Your task to perform on an android device: Show the shopping cart on newegg.com. Add macbook pro to the cart on newegg.com, then select checkout. Image 0: 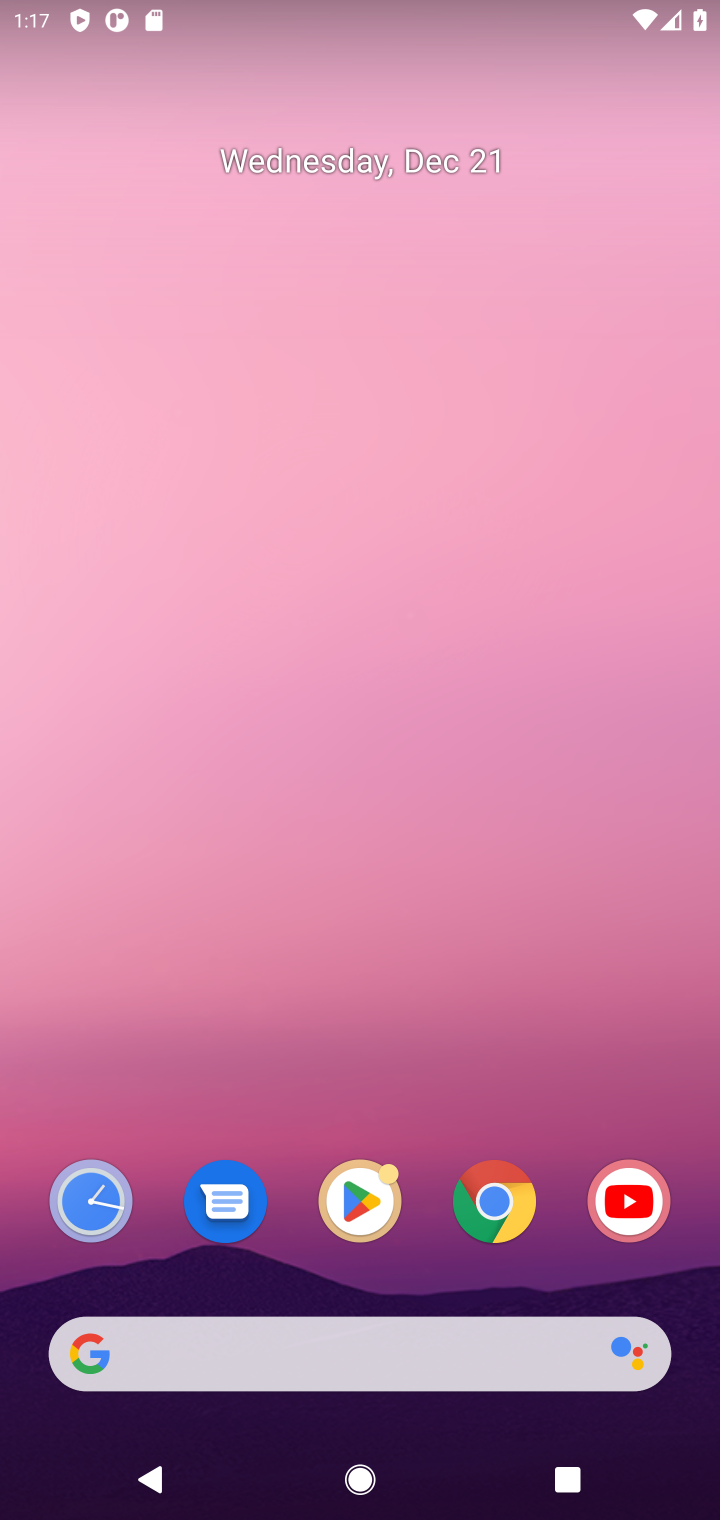
Step 0: click (479, 1216)
Your task to perform on an android device: Show the shopping cart on newegg.com. Add macbook pro to the cart on newegg.com, then select checkout. Image 1: 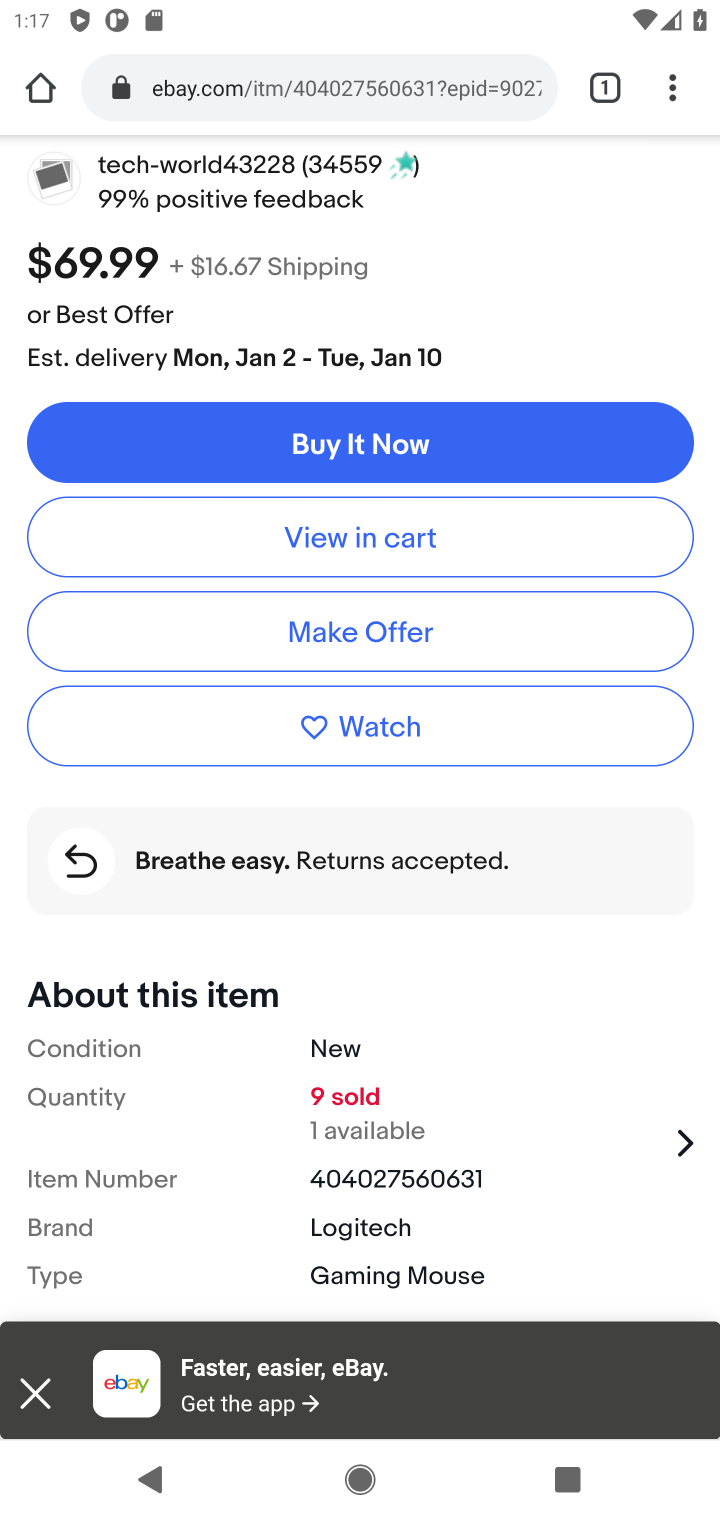
Step 1: click (223, 96)
Your task to perform on an android device: Show the shopping cart on newegg.com. Add macbook pro to the cart on newegg.com, then select checkout. Image 2: 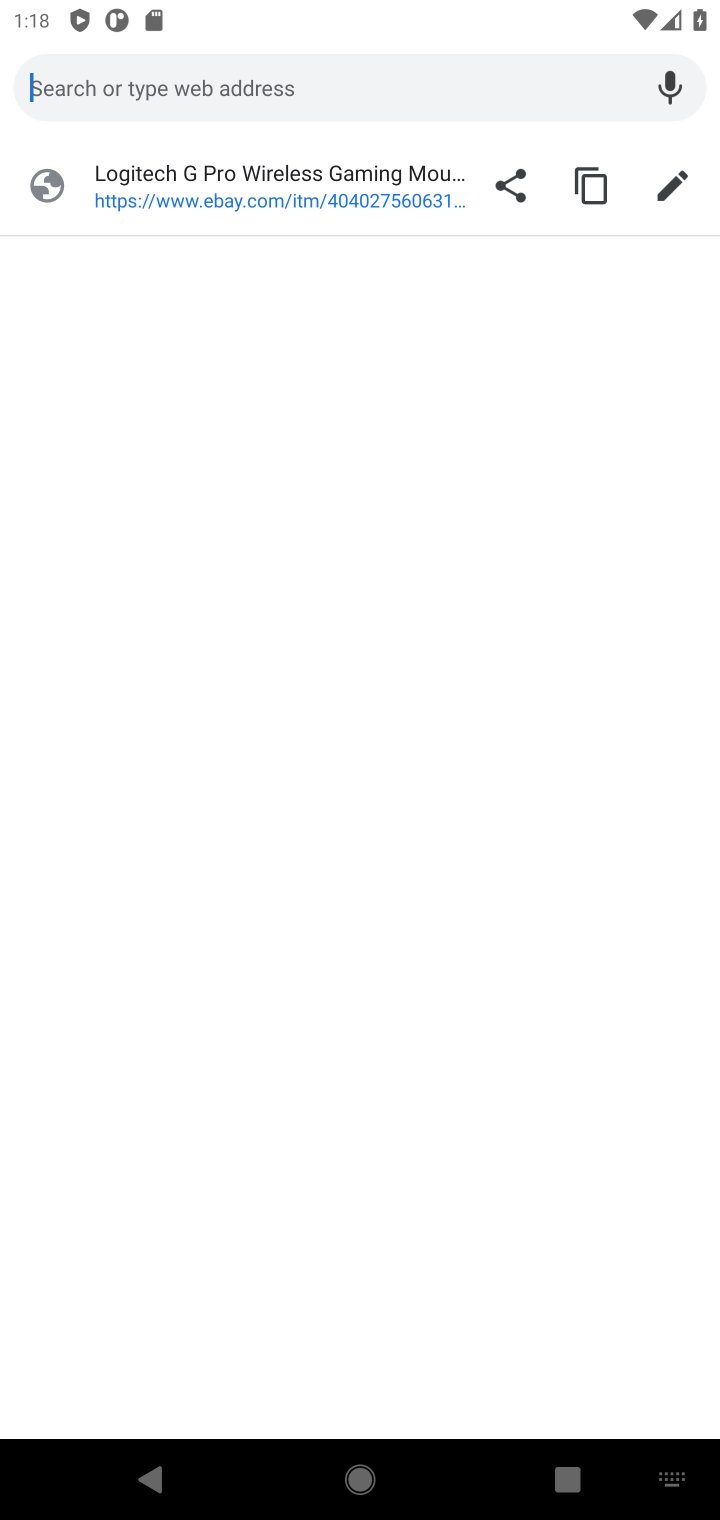
Step 2: type "newegg.com"
Your task to perform on an android device: Show the shopping cart on newegg.com. Add macbook pro to the cart on newegg.com, then select checkout. Image 3: 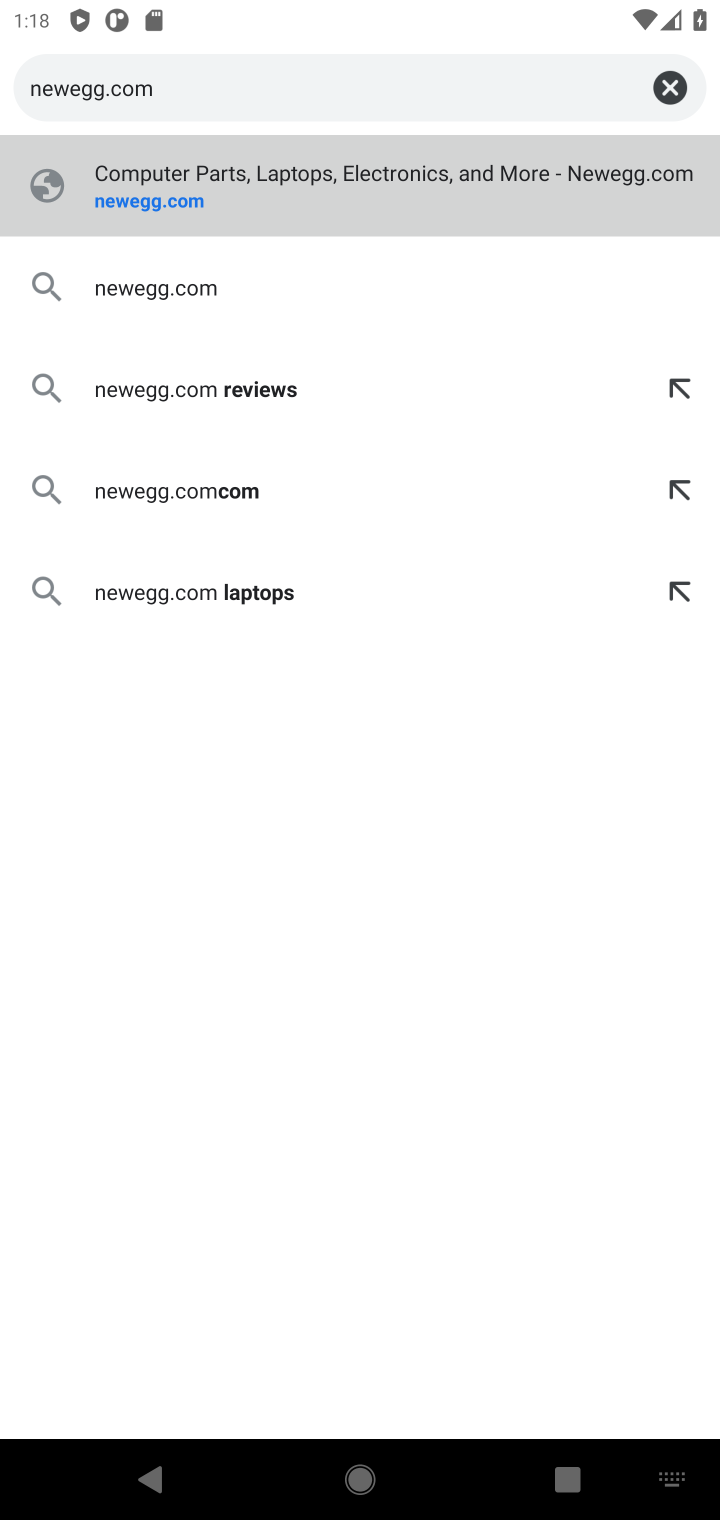
Step 3: click (150, 198)
Your task to perform on an android device: Show the shopping cart on newegg.com. Add macbook pro to the cart on newegg.com, then select checkout. Image 4: 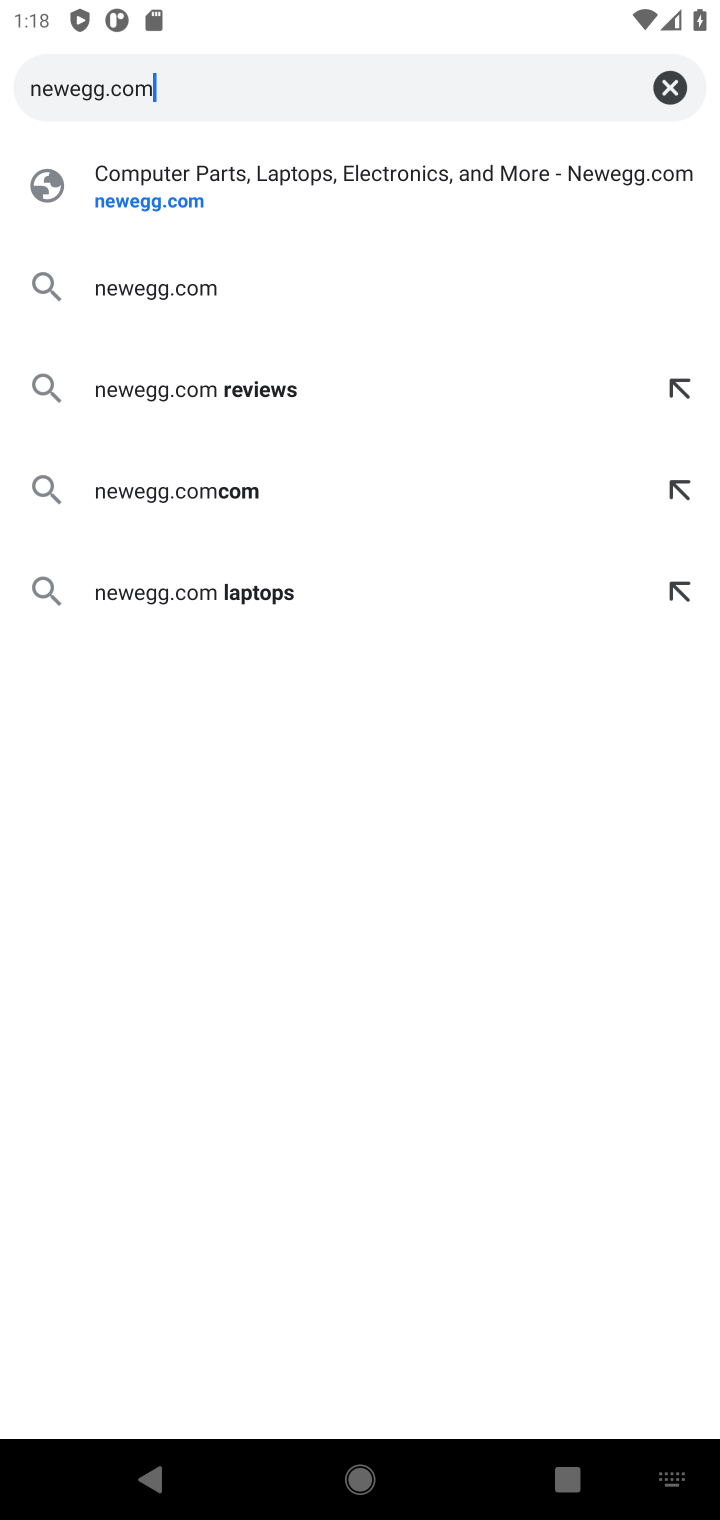
Step 4: click (159, 216)
Your task to perform on an android device: Show the shopping cart on newegg.com. Add macbook pro to the cart on newegg.com, then select checkout. Image 5: 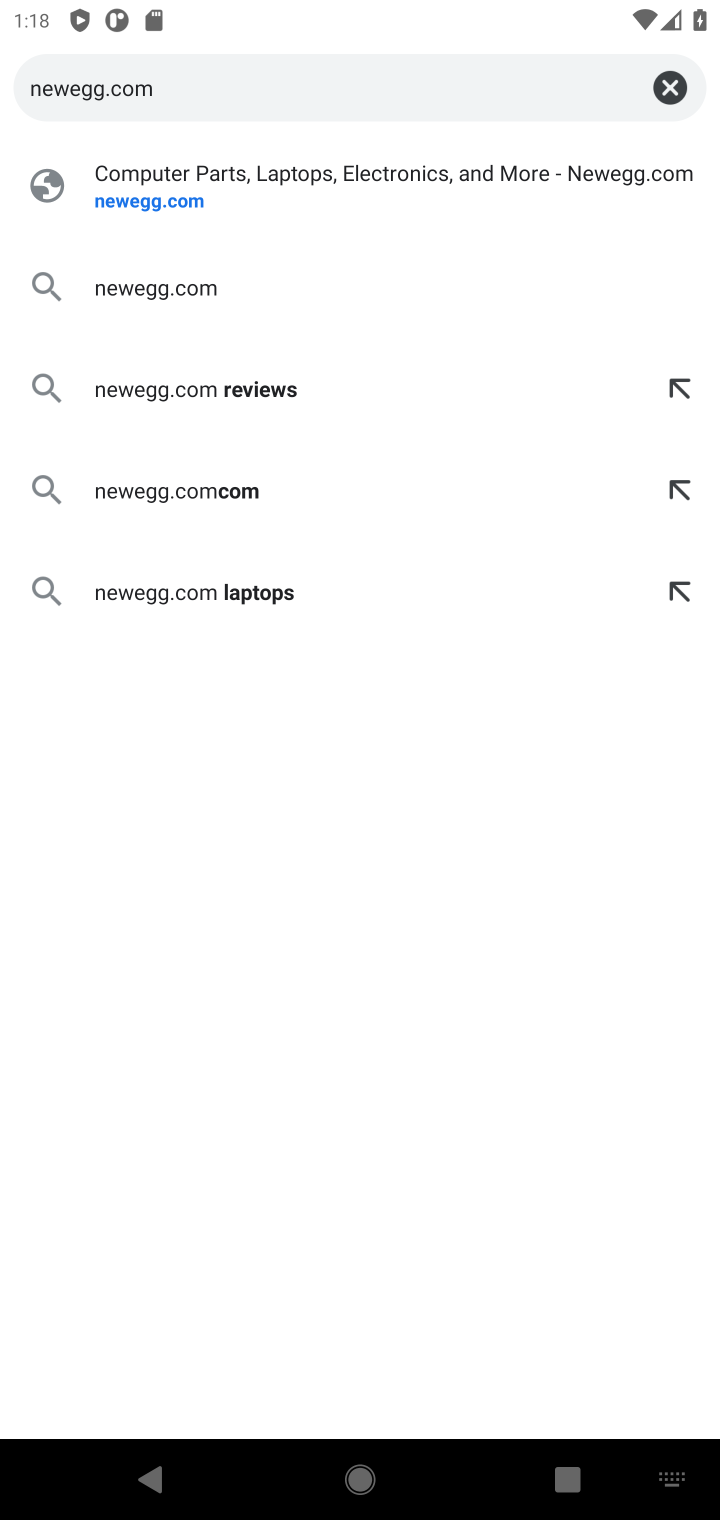
Step 5: click (159, 216)
Your task to perform on an android device: Show the shopping cart on newegg.com. Add macbook pro to the cart on newegg.com, then select checkout. Image 6: 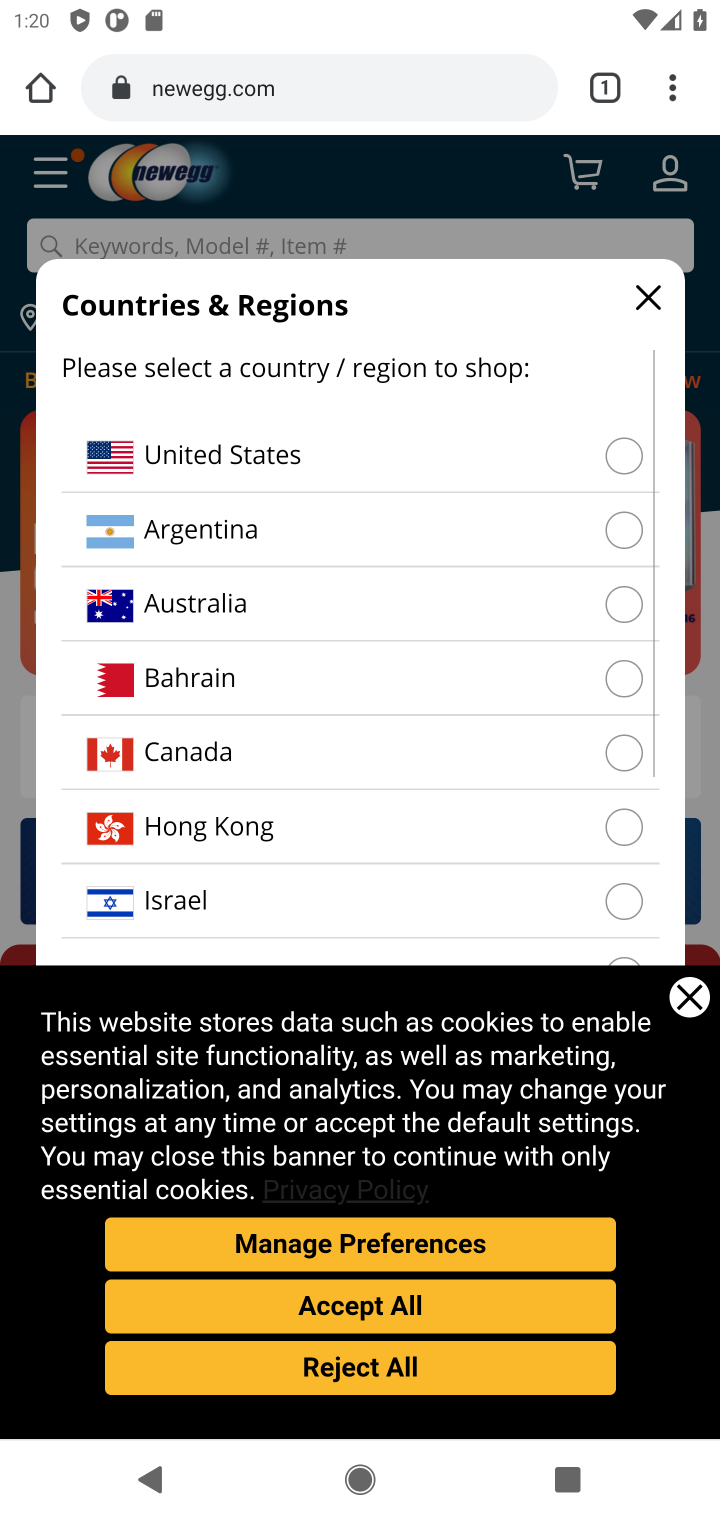
Step 6: click (694, 993)
Your task to perform on an android device: Show the shopping cart on newegg.com. Add macbook pro to the cart on newegg.com, then select checkout. Image 7: 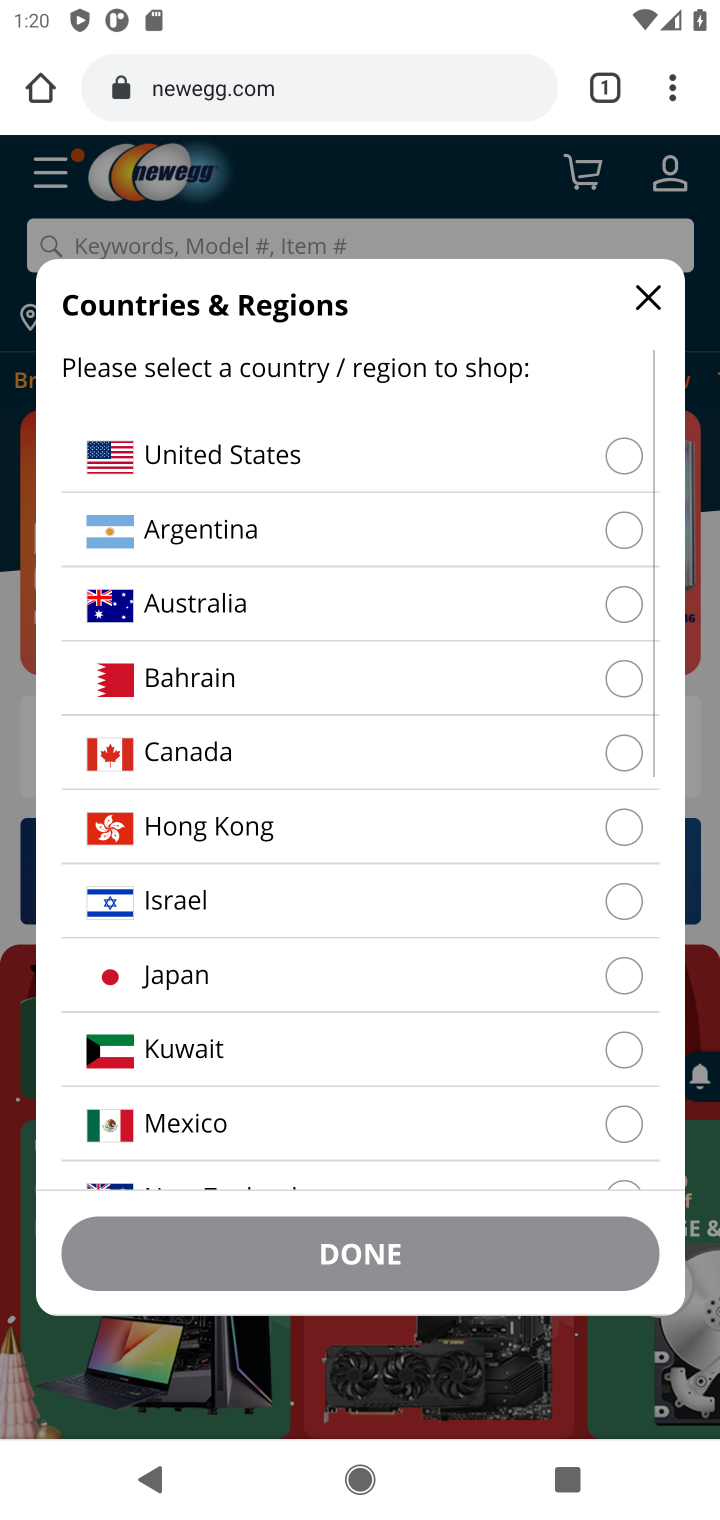
Step 7: click (218, 453)
Your task to perform on an android device: Show the shopping cart on newegg.com. Add macbook pro to the cart on newegg.com, then select checkout. Image 8: 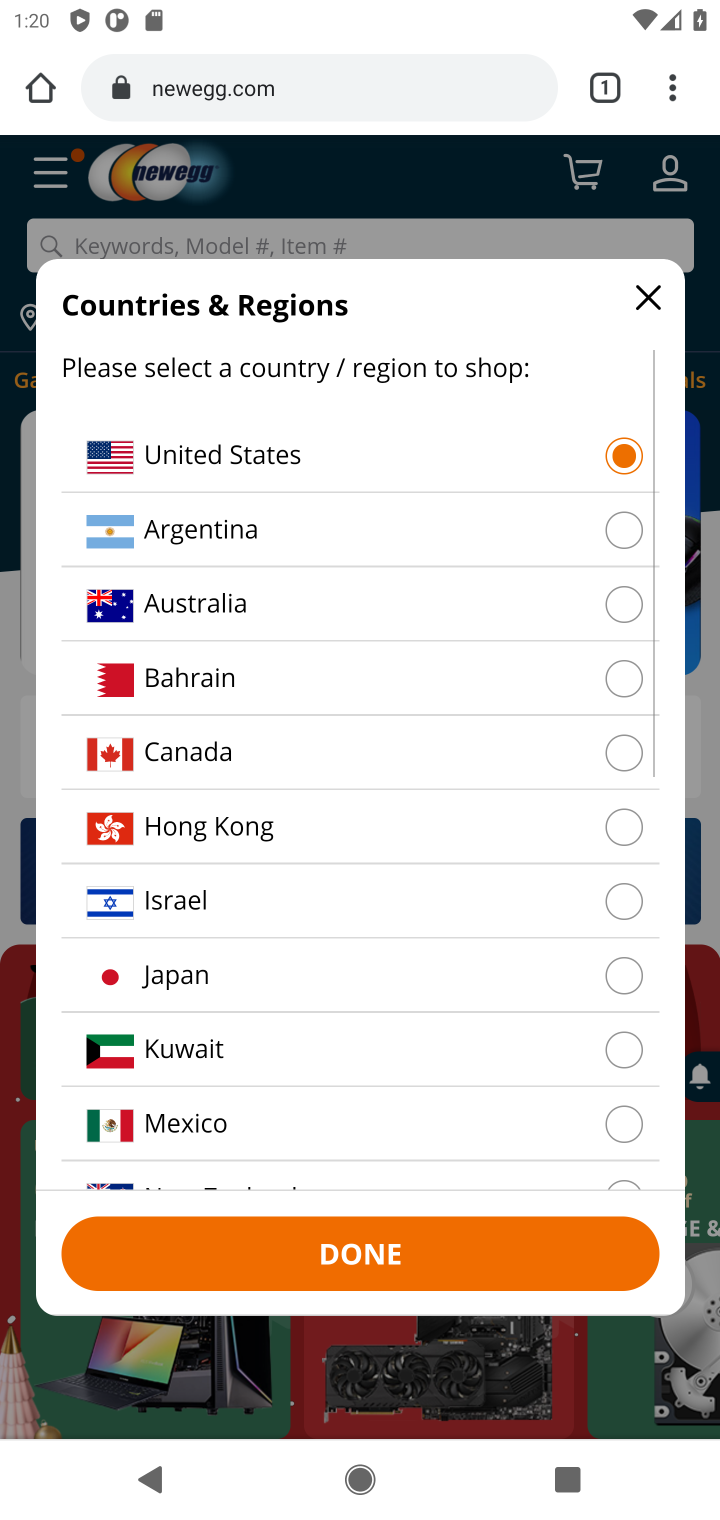
Step 8: click (347, 1249)
Your task to perform on an android device: Show the shopping cart on newegg.com. Add macbook pro to the cart on newegg.com, then select checkout. Image 9: 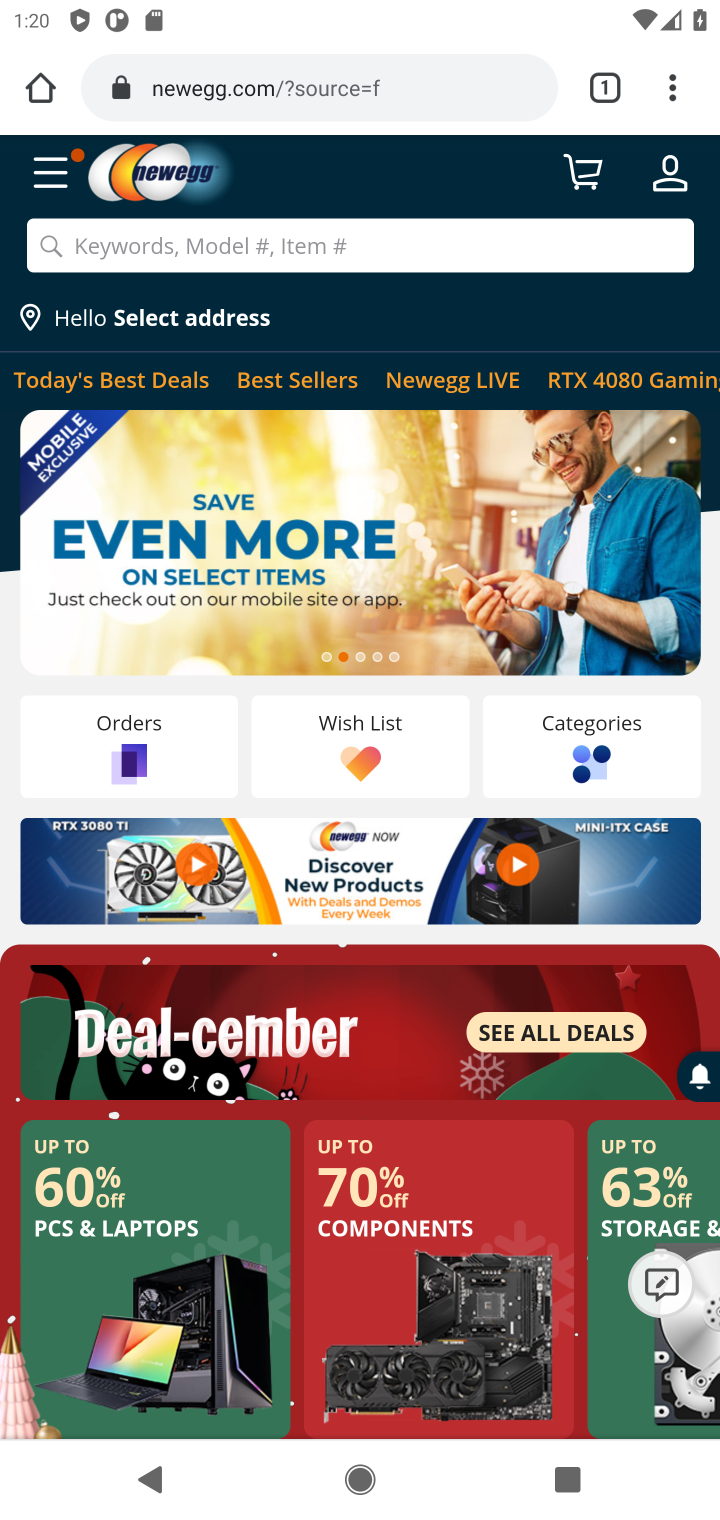
Step 9: click (590, 181)
Your task to perform on an android device: Show the shopping cart on newegg.com. Add macbook pro to the cart on newegg.com, then select checkout. Image 10: 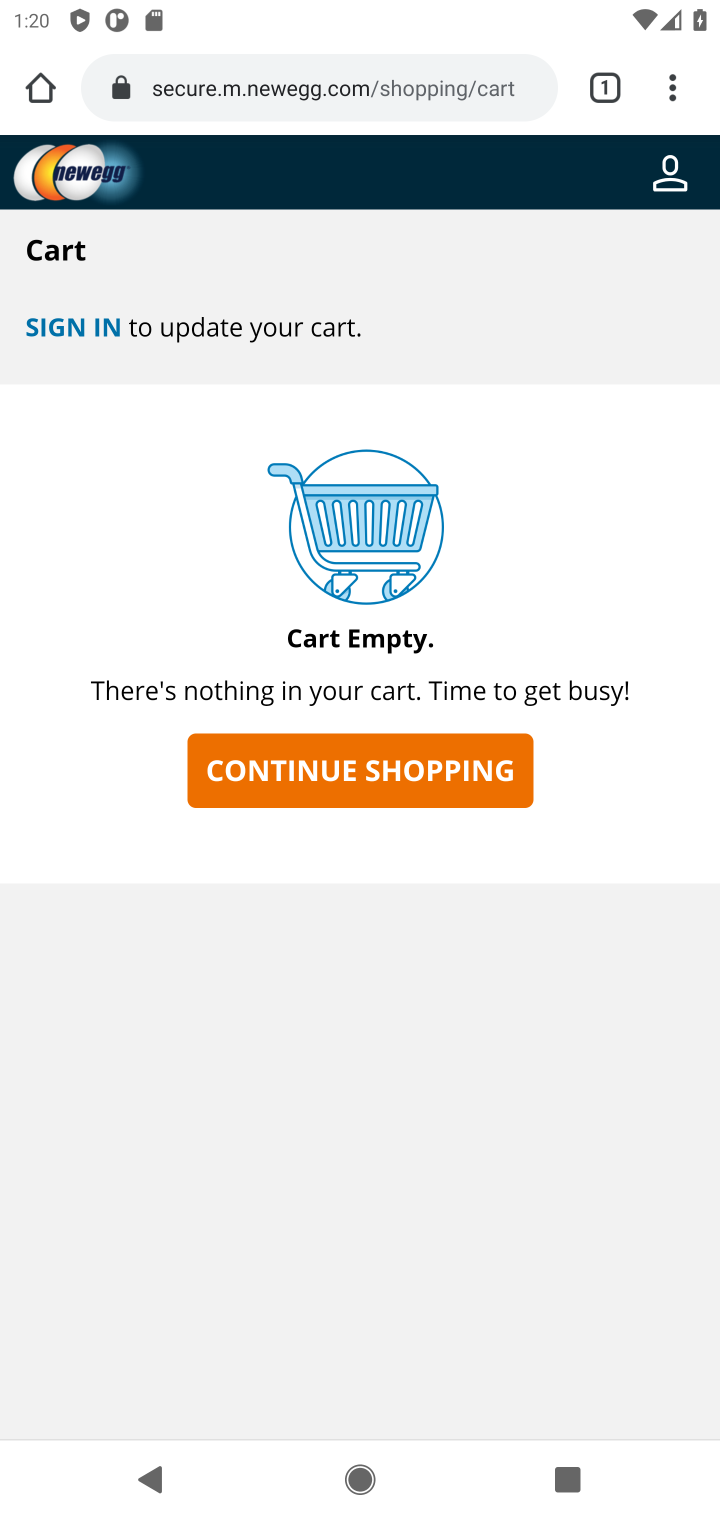
Step 10: click (378, 769)
Your task to perform on an android device: Show the shopping cart on newegg.com. Add macbook pro to the cart on newegg.com, then select checkout. Image 11: 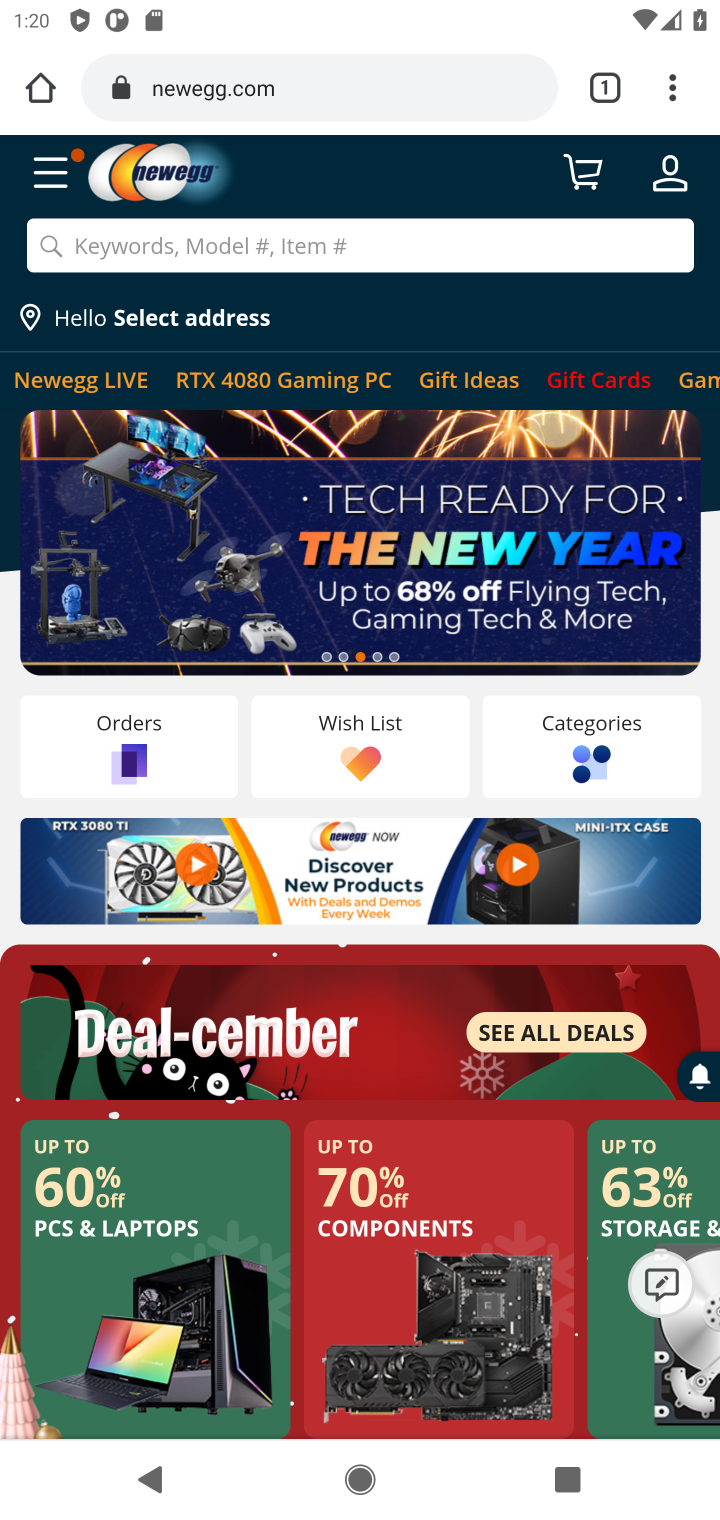
Step 11: click (122, 261)
Your task to perform on an android device: Show the shopping cart on newegg.com. Add macbook pro to the cart on newegg.com, then select checkout. Image 12: 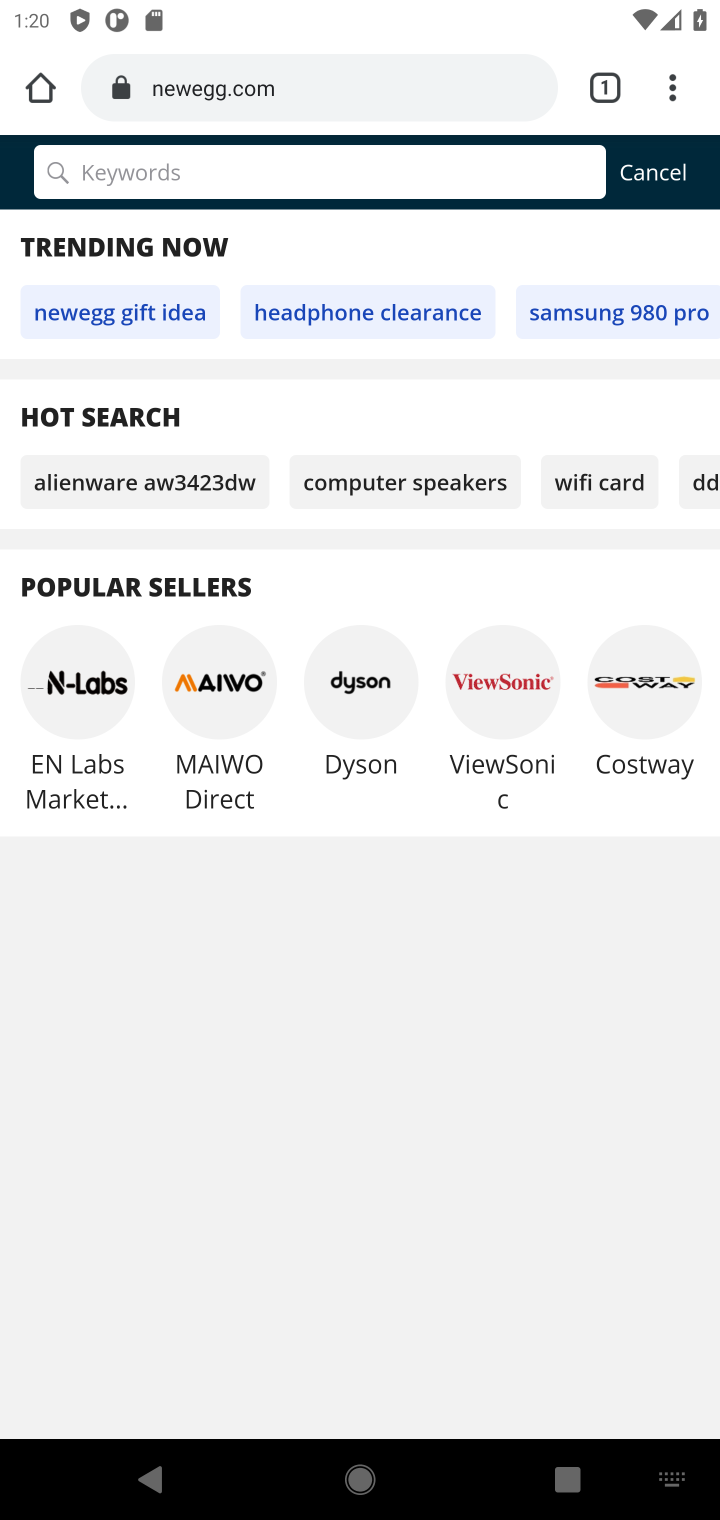
Step 12: type "macbook pro"
Your task to perform on an android device: Show the shopping cart on newegg.com. Add macbook pro to the cart on newegg.com, then select checkout. Image 13: 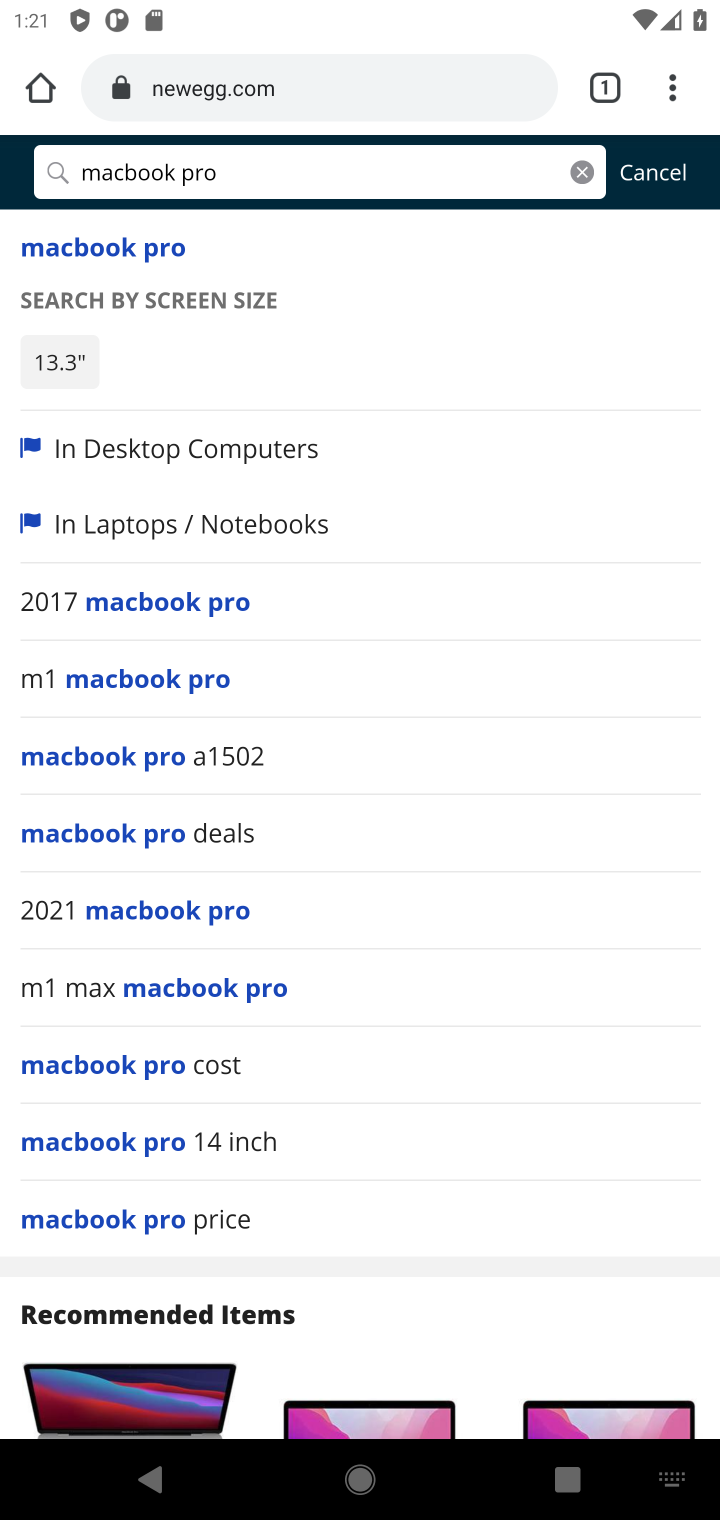
Step 13: click (66, 247)
Your task to perform on an android device: Show the shopping cart on newegg.com. Add macbook pro to the cart on newegg.com, then select checkout. Image 14: 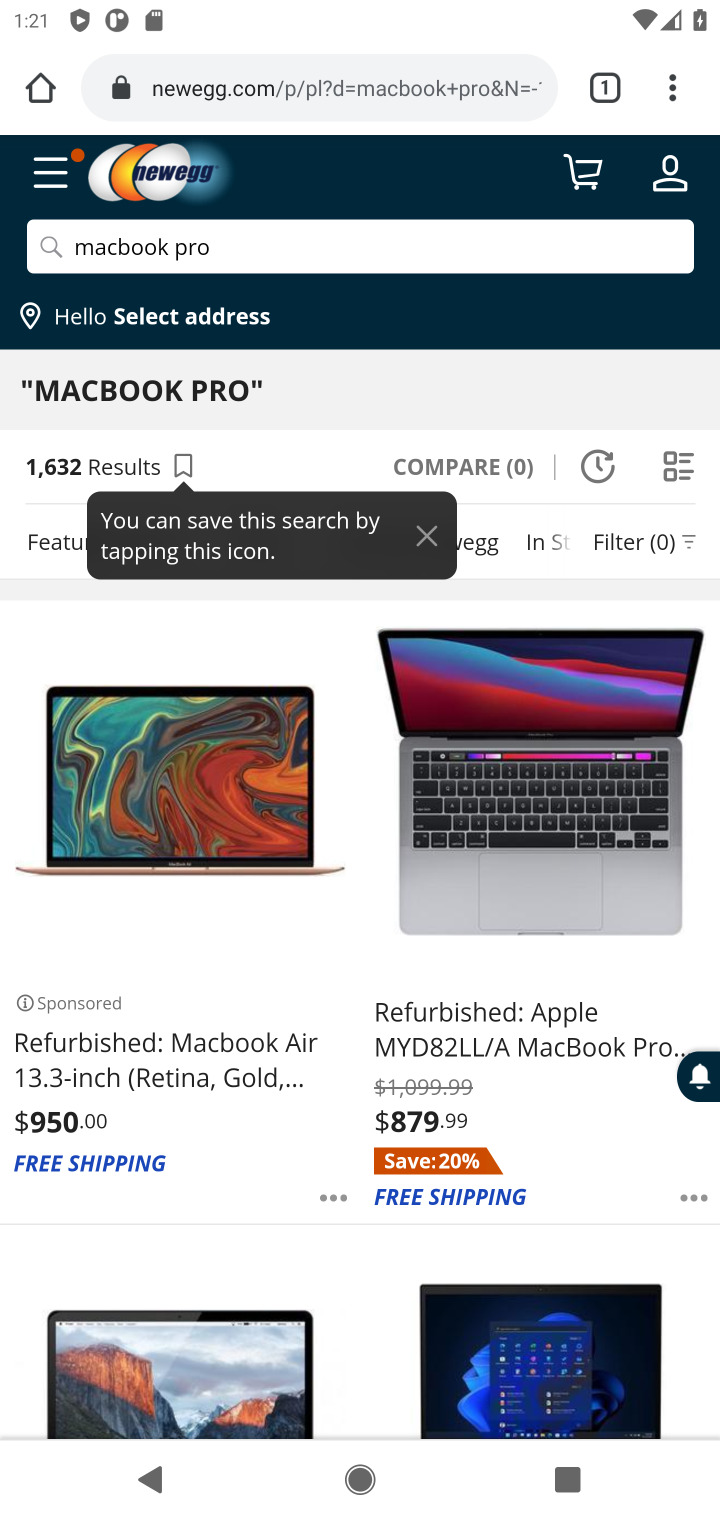
Step 14: drag from (150, 1025) to (150, 777)
Your task to perform on an android device: Show the shopping cart on newegg.com. Add macbook pro to the cart on newegg.com, then select checkout. Image 15: 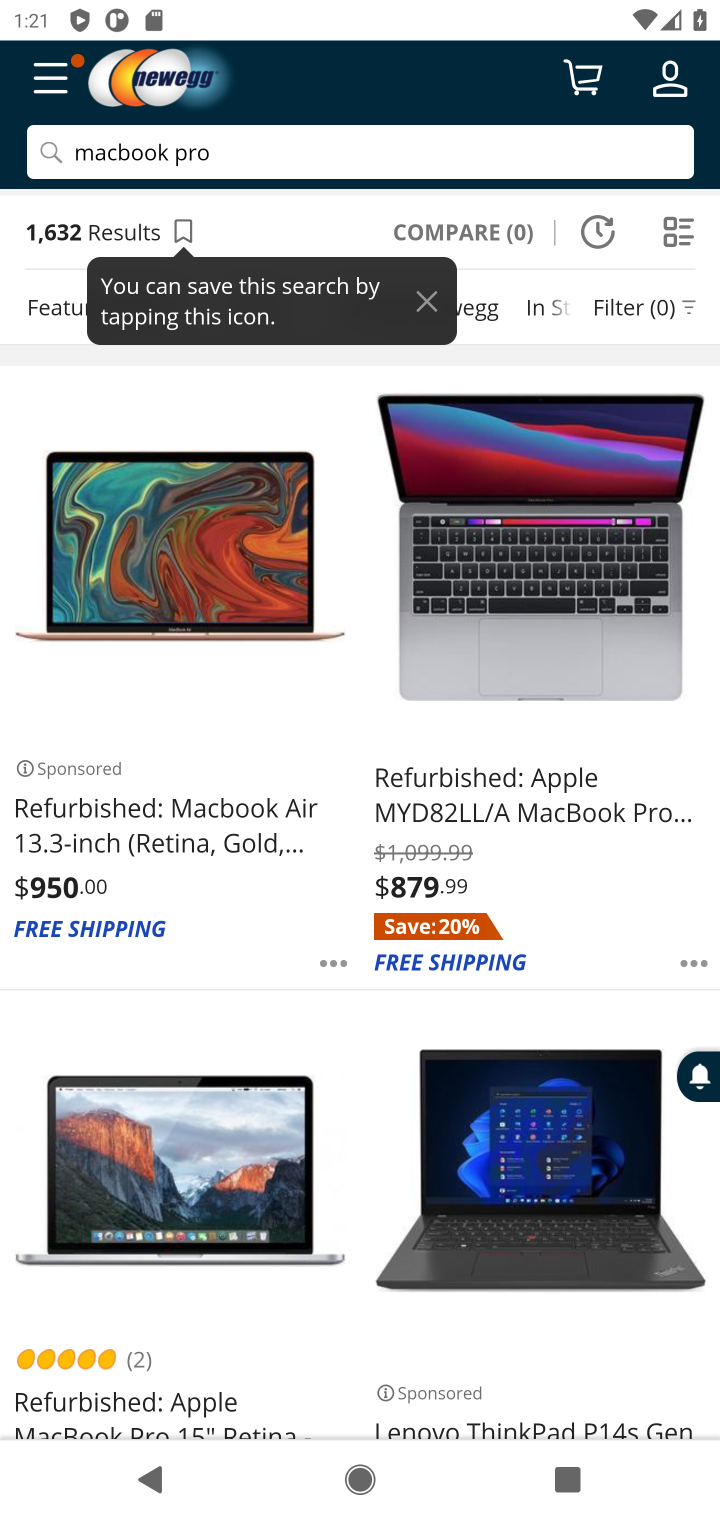
Step 15: click (534, 811)
Your task to perform on an android device: Show the shopping cart on newegg.com. Add macbook pro to the cart on newegg.com, then select checkout. Image 16: 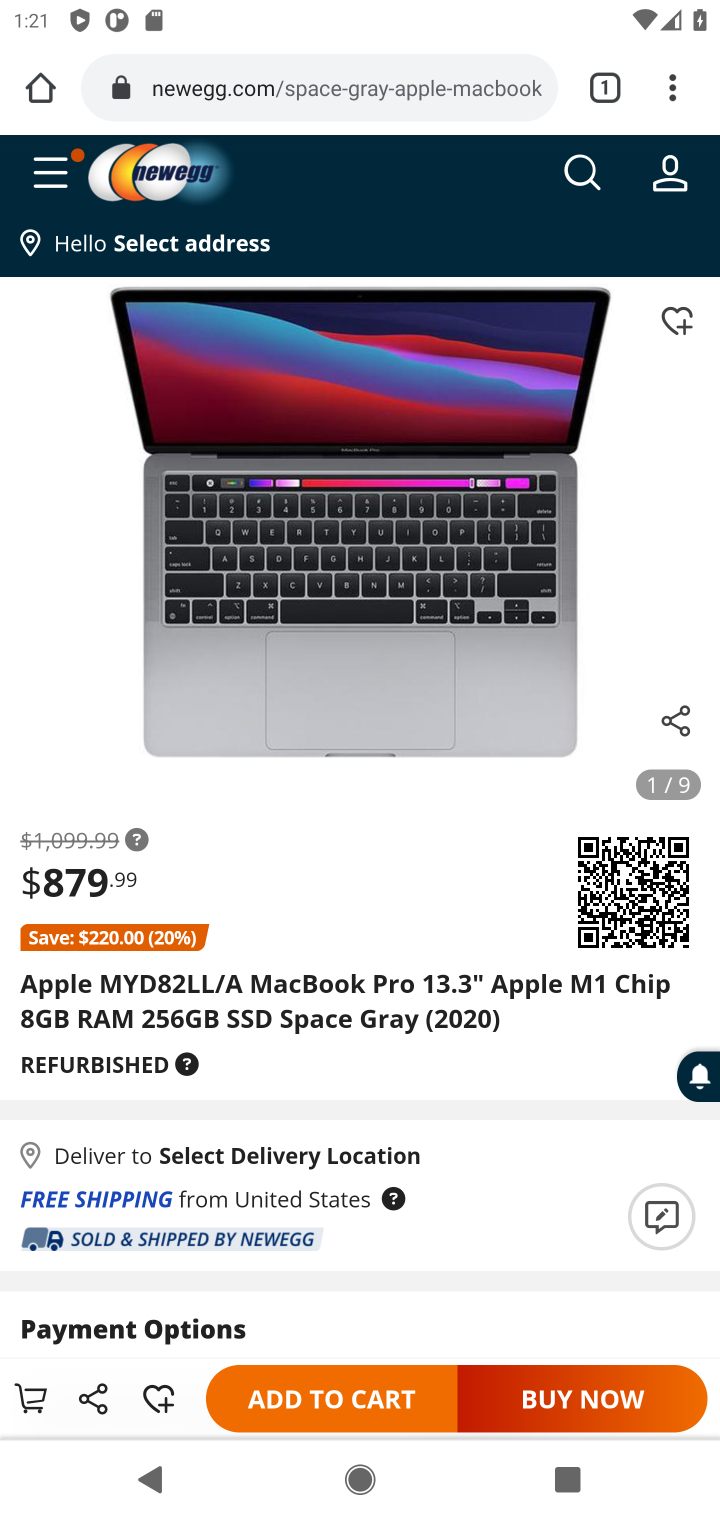
Step 16: click (368, 1393)
Your task to perform on an android device: Show the shopping cart on newegg.com. Add macbook pro to the cart on newegg.com, then select checkout. Image 17: 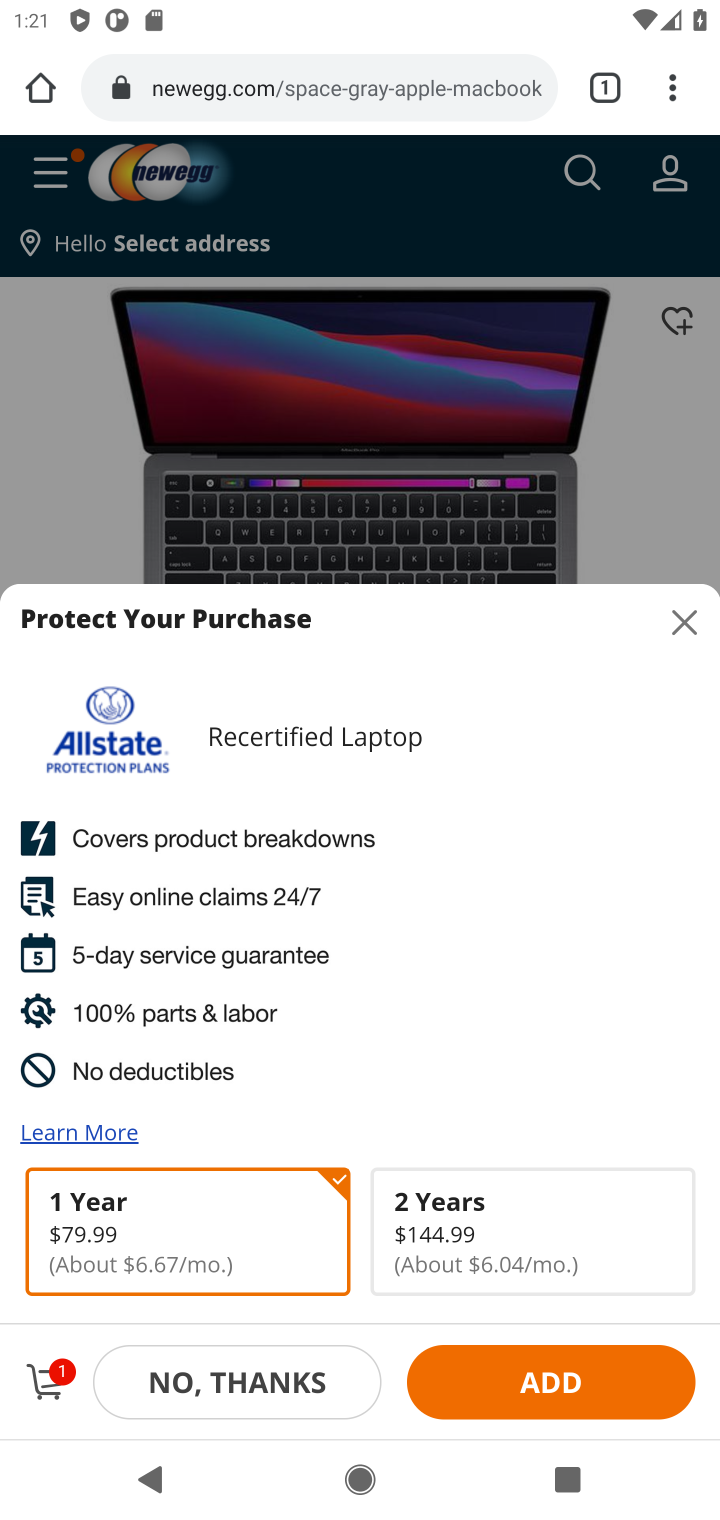
Step 17: click (59, 1373)
Your task to perform on an android device: Show the shopping cart on newegg.com. Add macbook pro to the cart on newegg.com, then select checkout. Image 18: 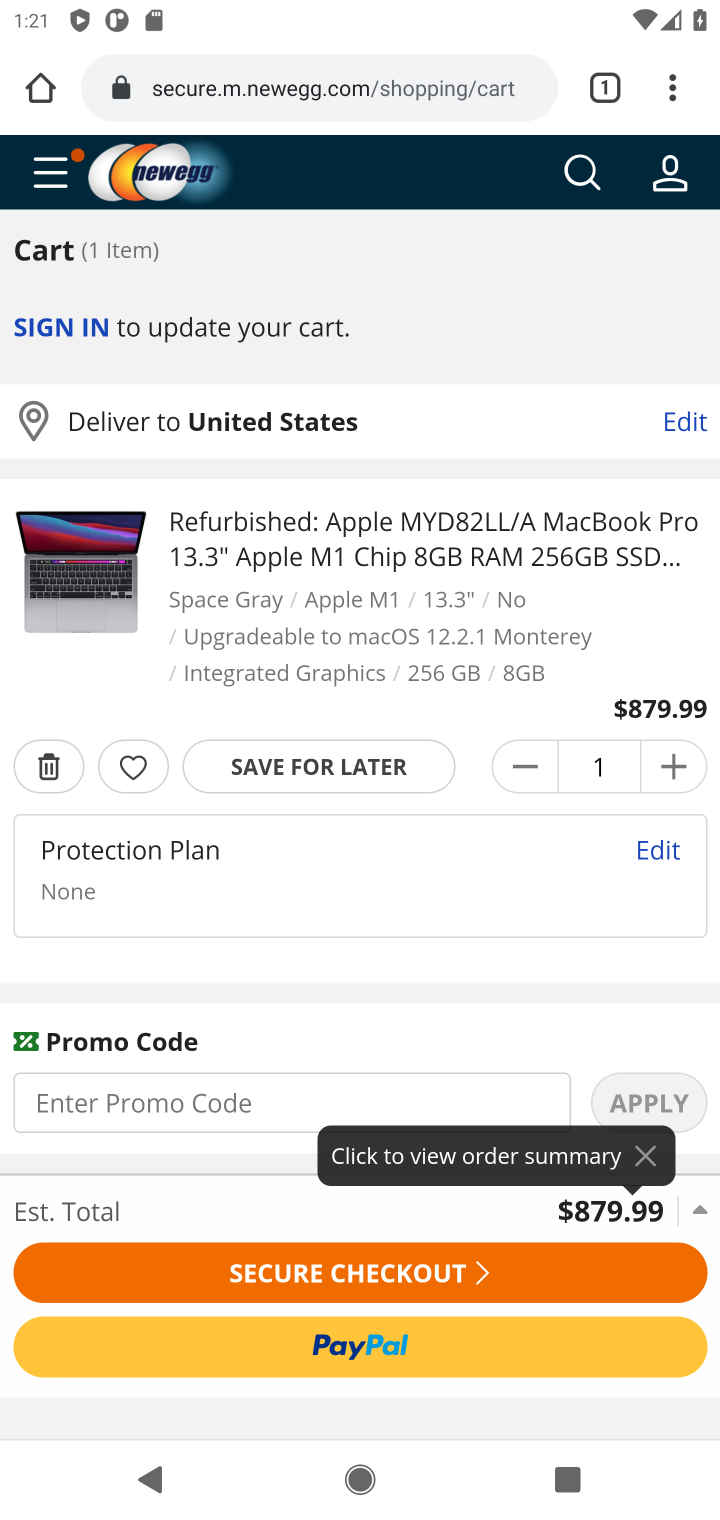
Step 18: click (331, 1274)
Your task to perform on an android device: Show the shopping cart on newegg.com. Add macbook pro to the cart on newegg.com, then select checkout. Image 19: 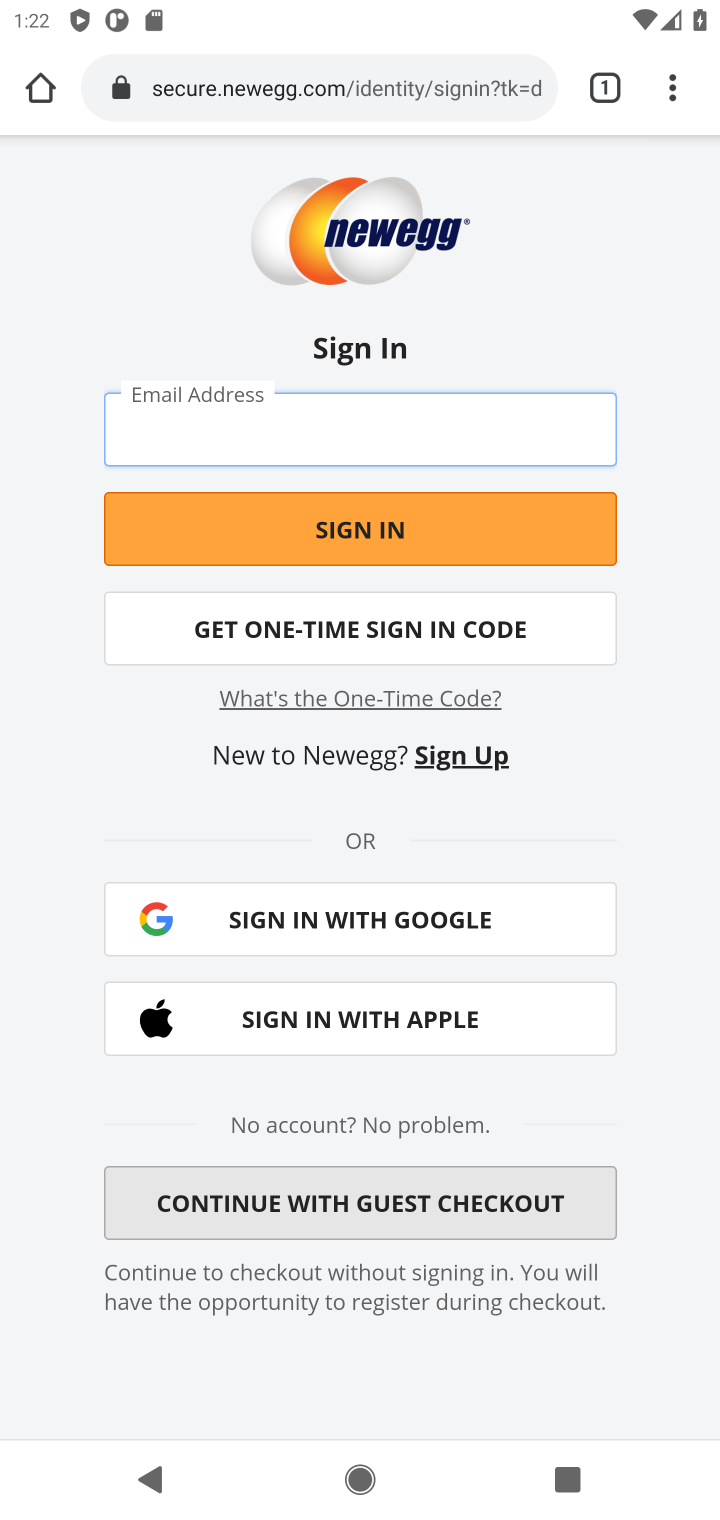
Step 19: task complete